Your task to perform on an android device: Turn on the flashlight Image 0: 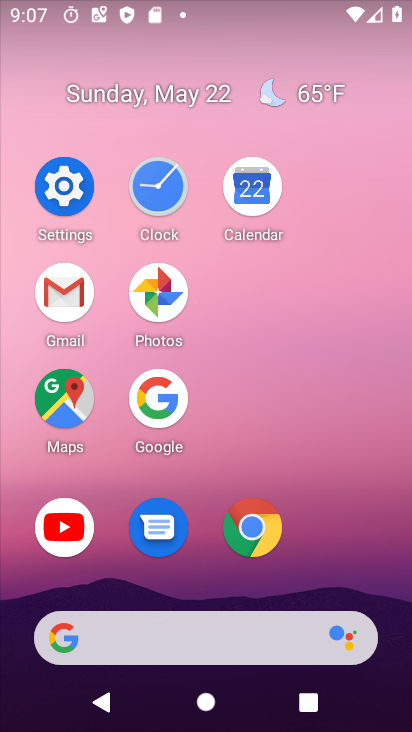
Step 0: drag from (236, 16) to (275, 512)
Your task to perform on an android device: Turn on the flashlight Image 1: 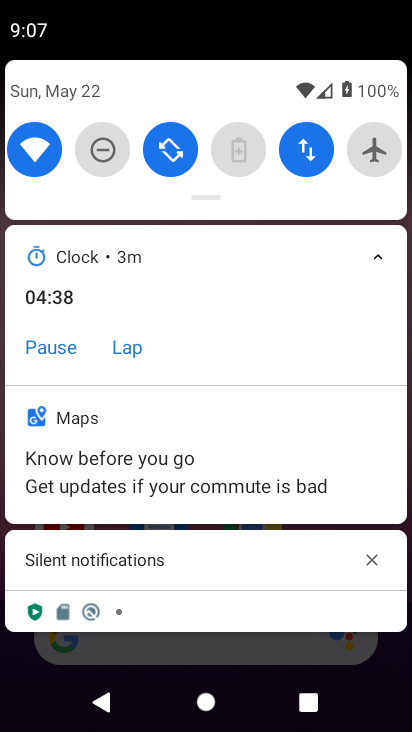
Step 1: task complete